Your task to perform on an android device: Go to calendar. Show me events next week Image 0: 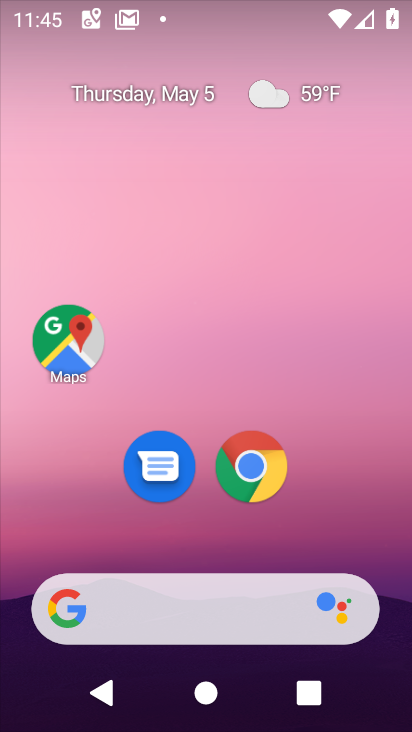
Step 0: drag from (361, 540) to (282, 27)
Your task to perform on an android device: Go to calendar. Show me events next week Image 1: 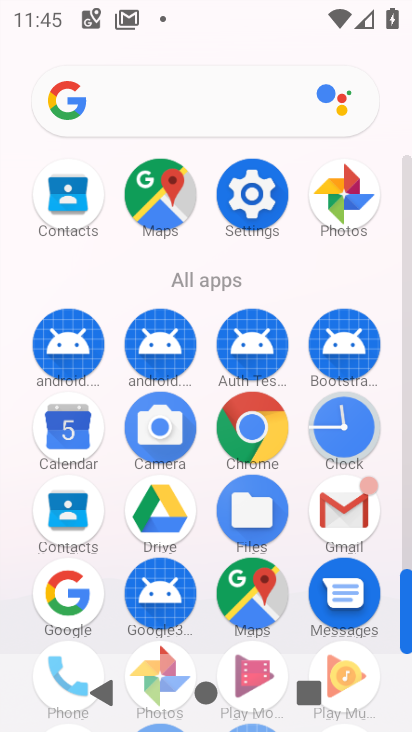
Step 1: click (75, 446)
Your task to perform on an android device: Go to calendar. Show me events next week Image 2: 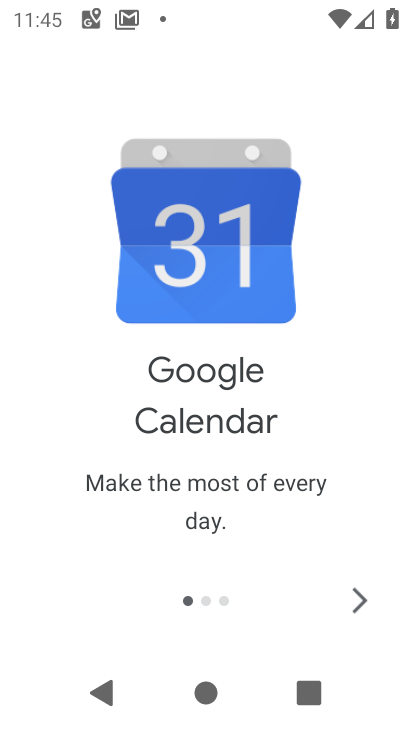
Step 2: click (360, 602)
Your task to perform on an android device: Go to calendar. Show me events next week Image 3: 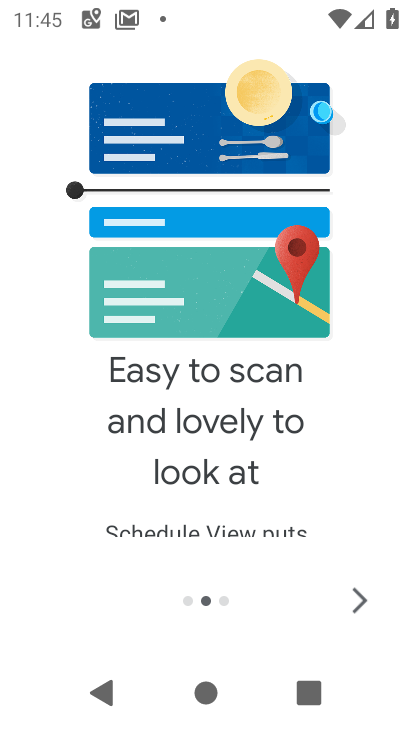
Step 3: click (360, 602)
Your task to perform on an android device: Go to calendar. Show me events next week Image 4: 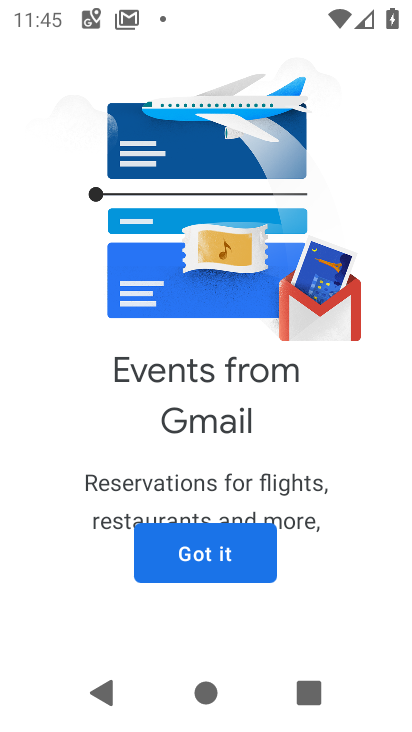
Step 4: click (249, 550)
Your task to perform on an android device: Go to calendar. Show me events next week Image 5: 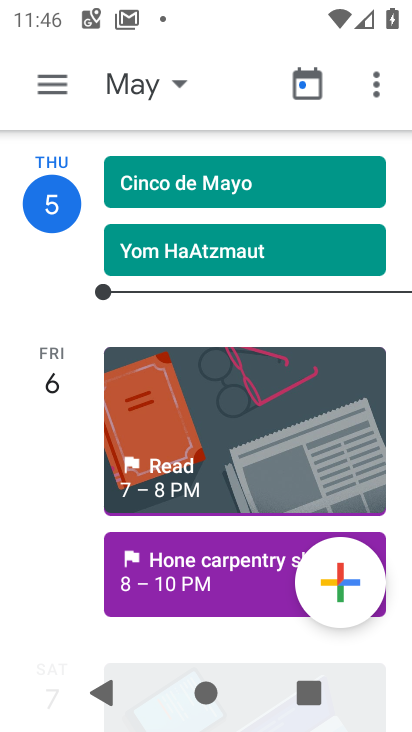
Step 5: click (66, 94)
Your task to perform on an android device: Go to calendar. Show me events next week Image 6: 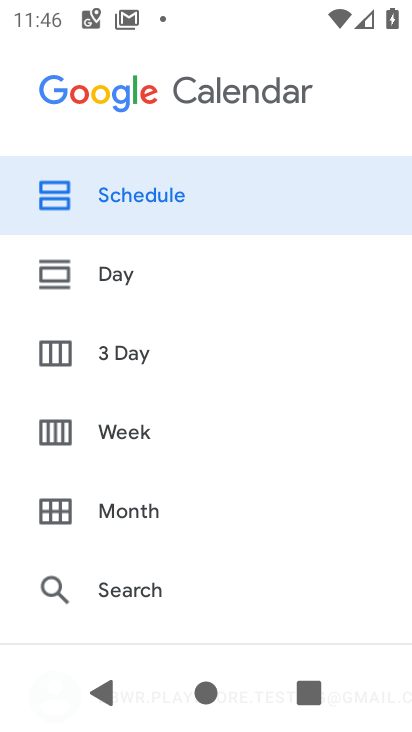
Step 6: click (200, 429)
Your task to perform on an android device: Go to calendar. Show me events next week Image 7: 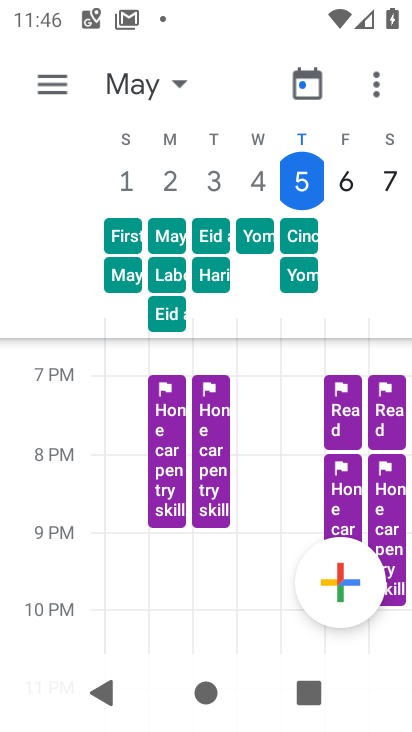
Step 7: click (151, 82)
Your task to perform on an android device: Go to calendar. Show me events next week Image 8: 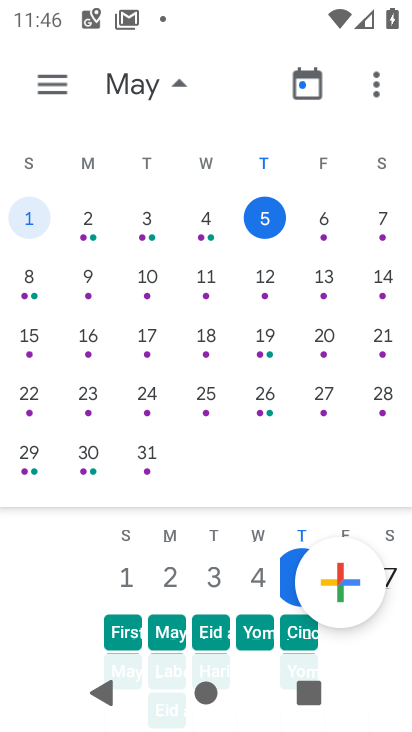
Step 8: click (211, 274)
Your task to perform on an android device: Go to calendar. Show me events next week Image 9: 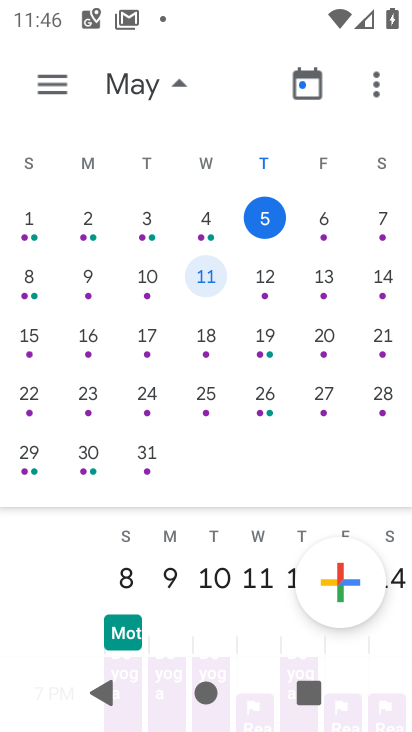
Step 9: click (171, 82)
Your task to perform on an android device: Go to calendar. Show me events next week Image 10: 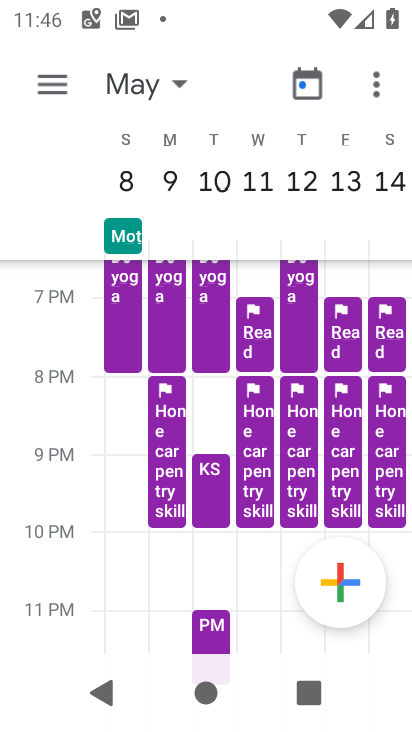
Step 10: task complete